Your task to perform on an android device: find which apps use the phone's location Image 0: 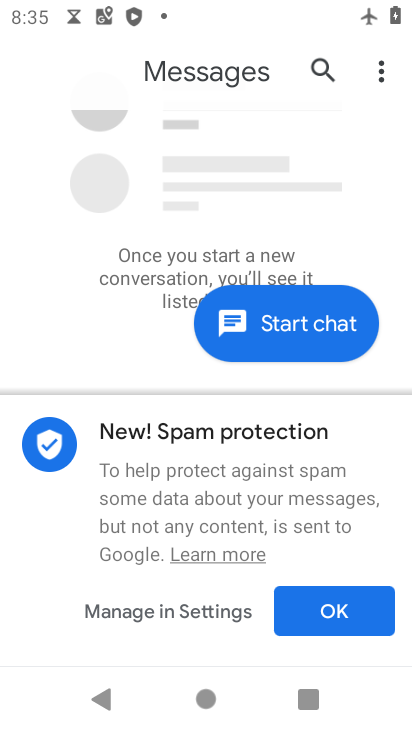
Step 0: press home button
Your task to perform on an android device: find which apps use the phone's location Image 1: 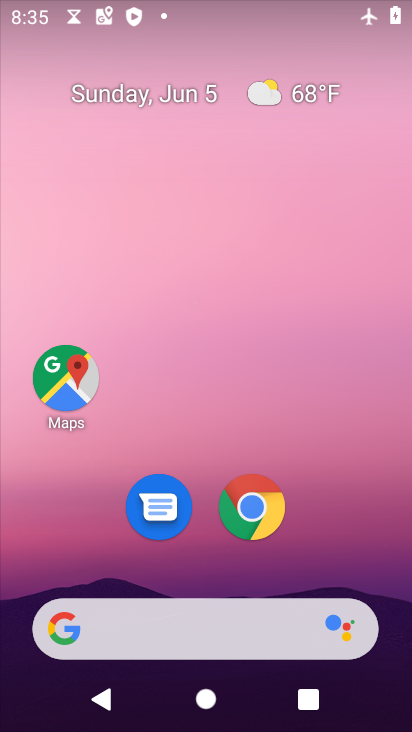
Step 1: drag from (208, 568) to (263, 29)
Your task to perform on an android device: find which apps use the phone's location Image 2: 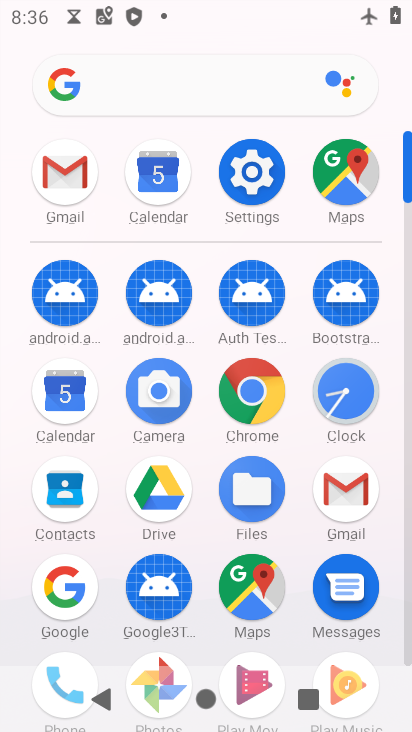
Step 2: drag from (186, 568) to (230, 92)
Your task to perform on an android device: find which apps use the phone's location Image 3: 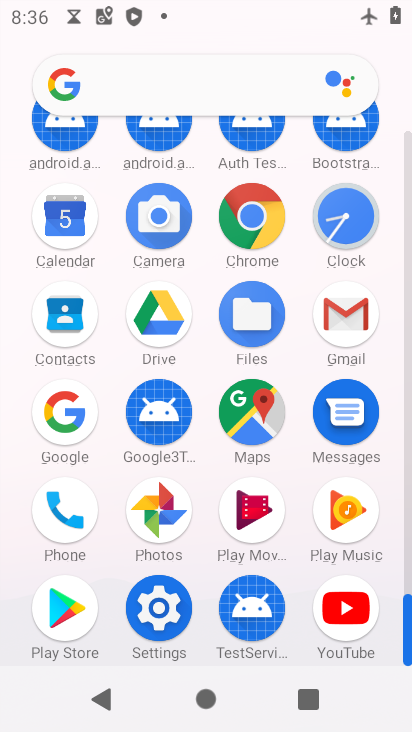
Step 3: click (148, 604)
Your task to perform on an android device: find which apps use the phone's location Image 4: 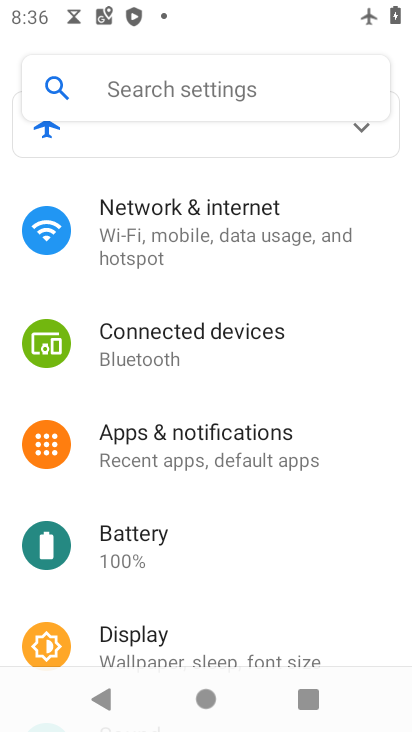
Step 4: drag from (170, 577) to (254, 239)
Your task to perform on an android device: find which apps use the phone's location Image 5: 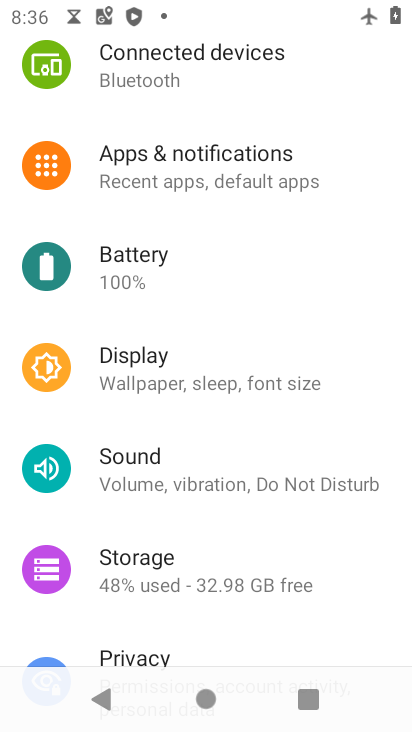
Step 5: drag from (138, 571) to (274, 137)
Your task to perform on an android device: find which apps use the phone's location Image 6: 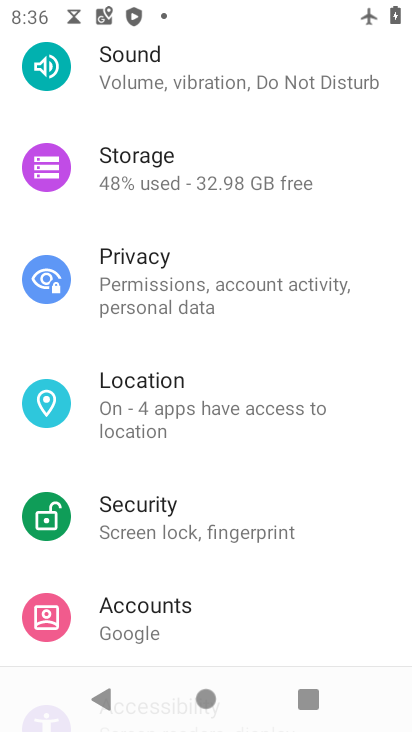
Step 6: click (152, 391)
Your task to perform on an android device: find which apps use the phone's location Image 7: 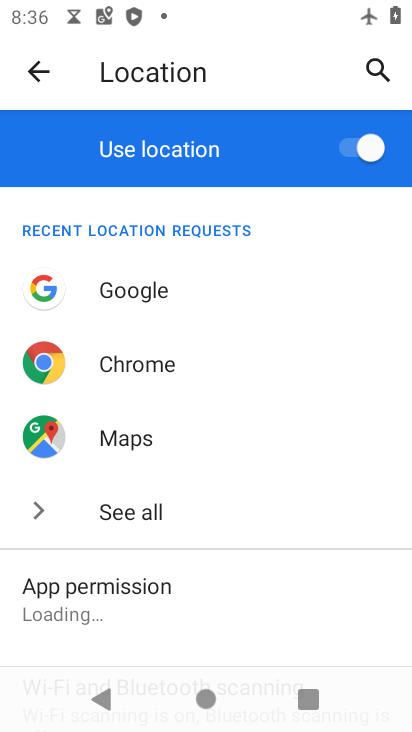
Step 7: click (115, 596)
Your task to perform on an android device: find which apps use the phone's location Image 8: 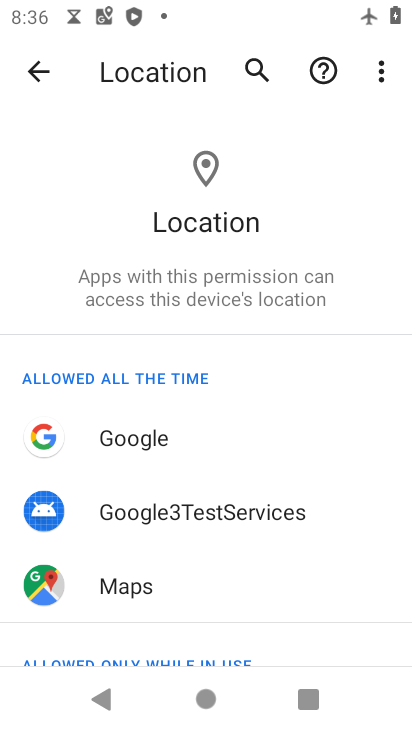
Step 8: task complete